Your task to perform on an android device: Search for Mexican restaurants on Maps Image 0: 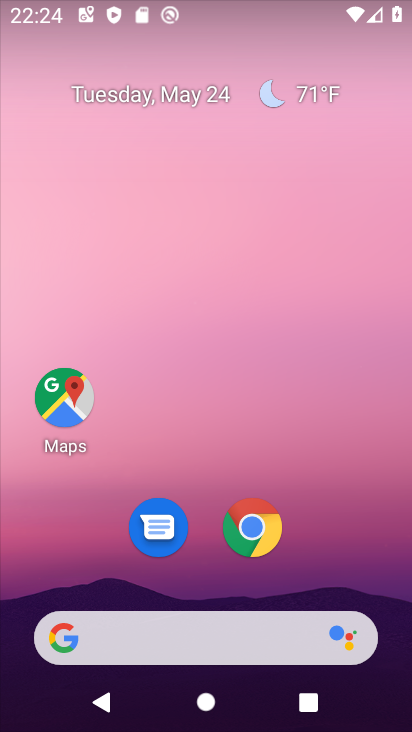
Step 0: click (58, 388)
Your task to perform on an android device: Search for Mexican restaurants on Maps Image 1: 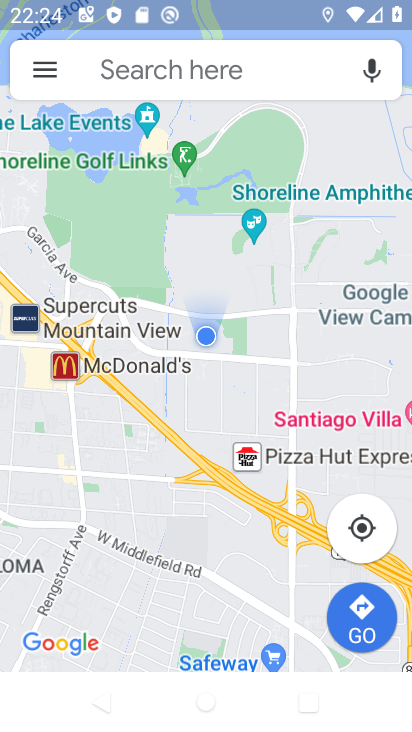
Step 1: click (171, 70)
Your task to perform on an android device: Search for Mexican restaurants on Maps Image 2: 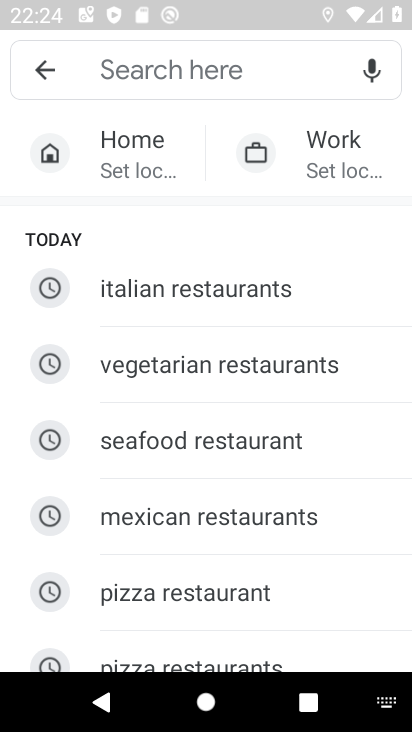
Step 2: type "mexican restaurants"
Your task to perform on an android device: Search for Mexican restaurants on Maps Image 3: 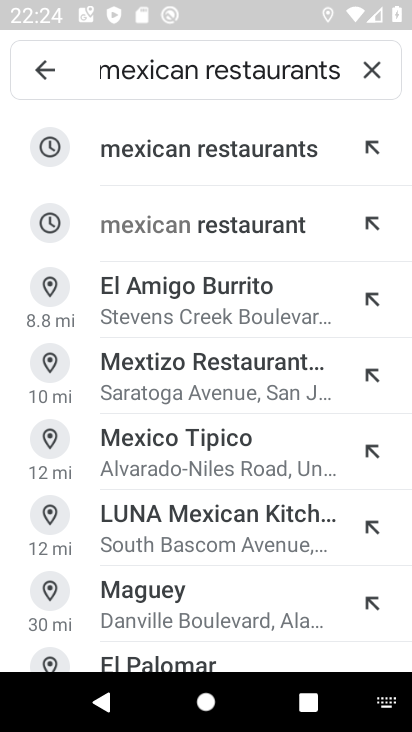
Step 3: click (123, 150)
Your task to perform on an android device: Search for Mexican restaurants on Maps Image 4: 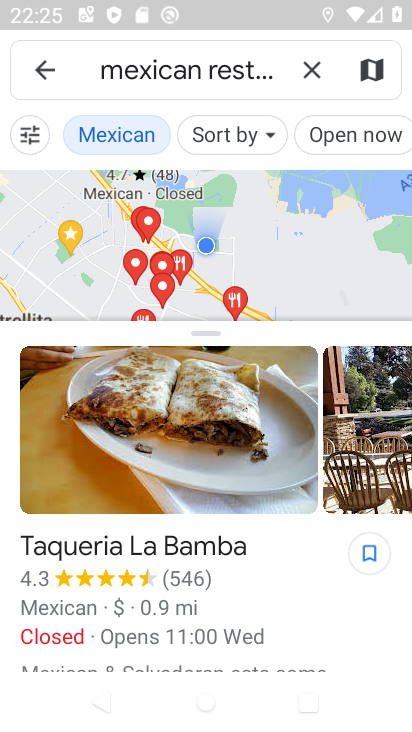
Step 4: task complete